Your task to perform on an android device: Open eBay Image 0: 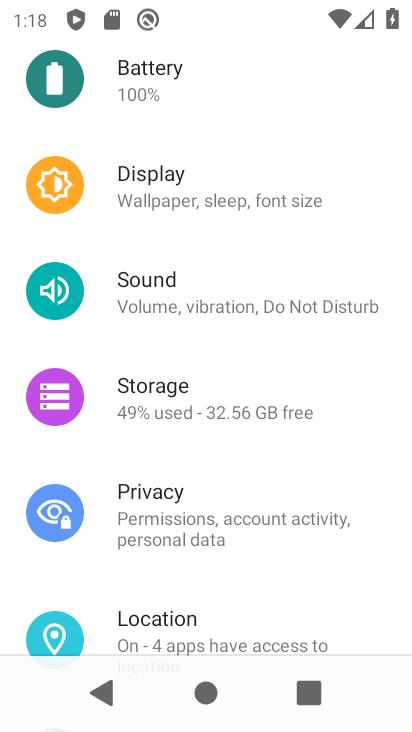
Step 0: press home button
Your task to perform on an android device: Open eBay Image 1: 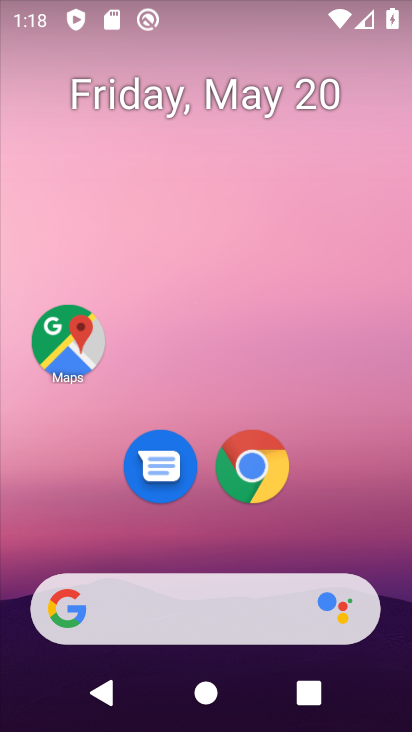
Step 1: click (270, 462)
Your task to perform on an android device: Open eBay Image 2: 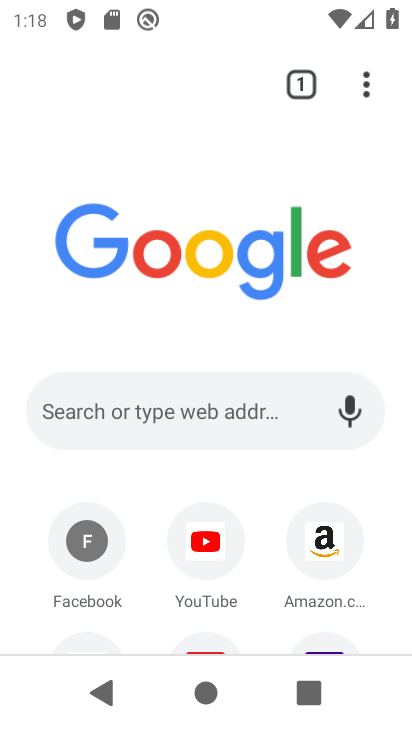
Step 2: click (177, 404)
Your task to perform on an android device: Open eBay Image 3: 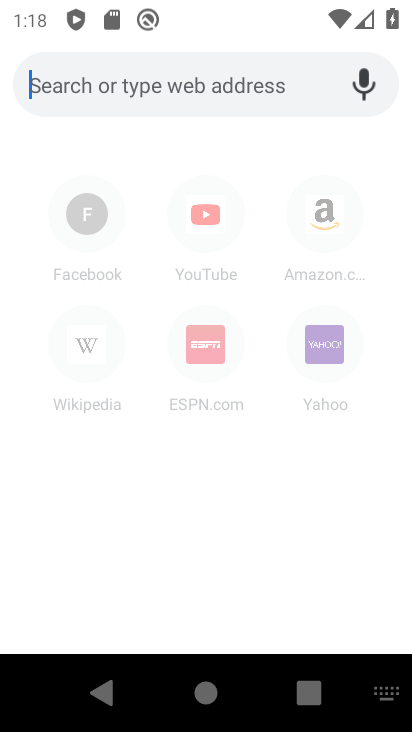
Step 3: type "eBay"
Your task to perform on an android device: Open eBay Image 4: 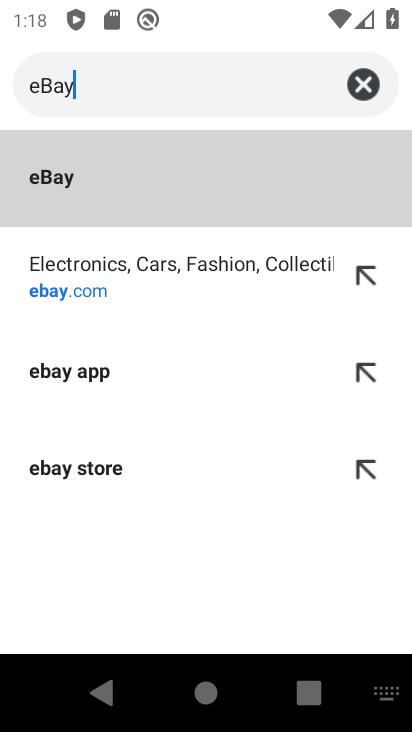
Step 4: click (117, 211)
Your task to perform on an android device: Open eBay Image 5: 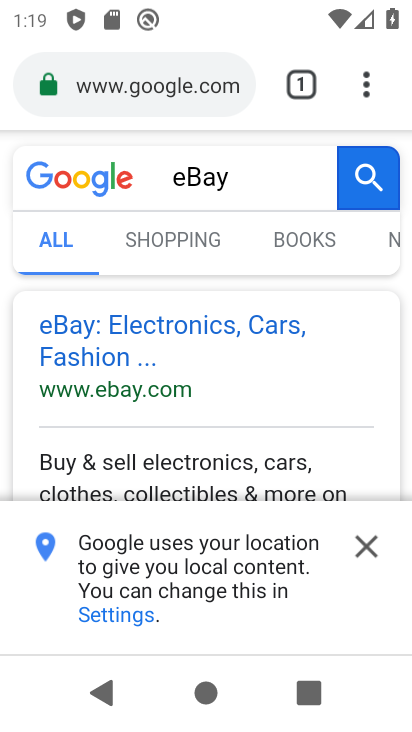
Step 5: click (52, 323)
Your task to perform on an android device: Open eBay Image 6: 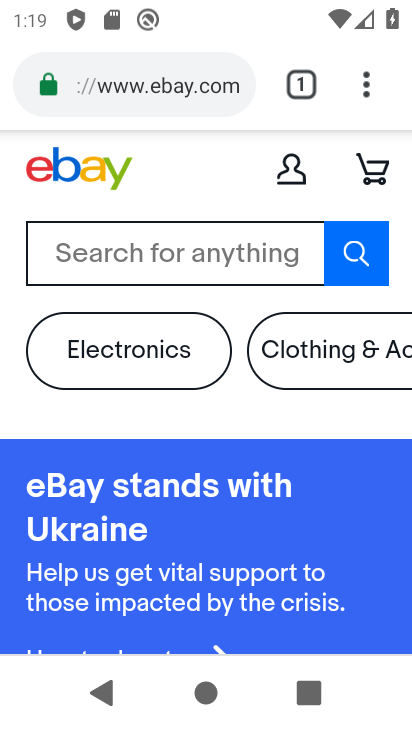
Step 6: task complete